Your task to perform on an android device: turn on wifi Image 0: 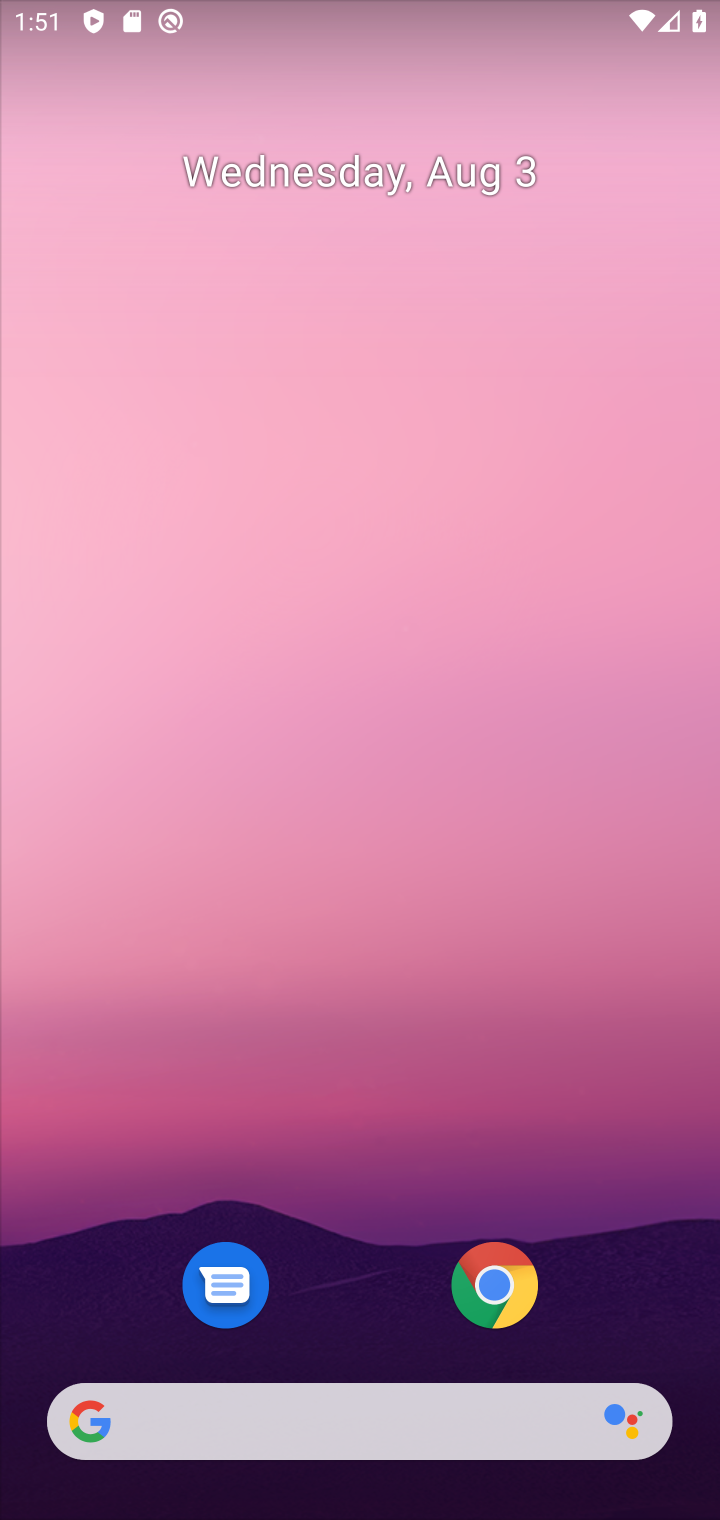
Step 0: click (272, 264)
Your task to perform on an android device: turn on wifi Image 1: 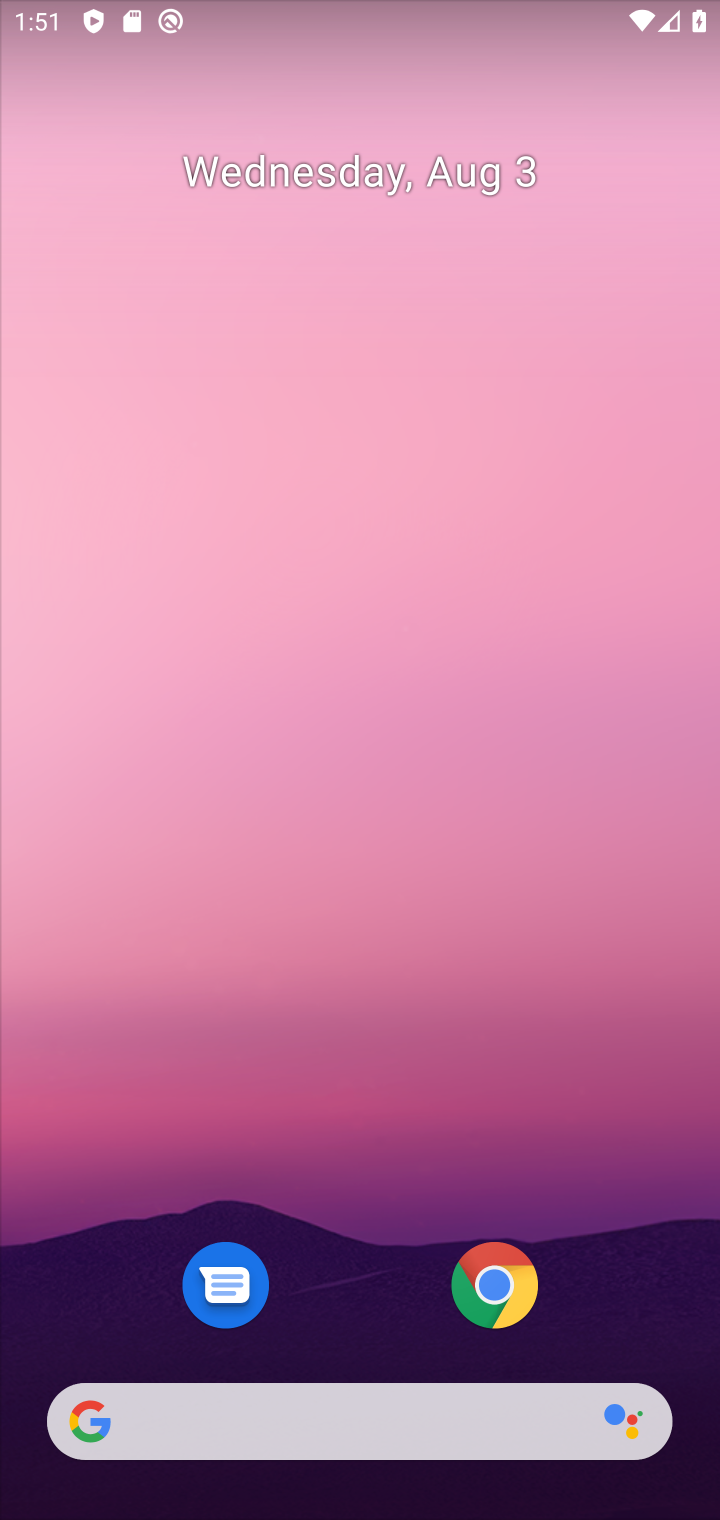
Step 1: drag from (418, 481) to (397, 251)
Your task to perform on an android device: turn on wifi Image 2: 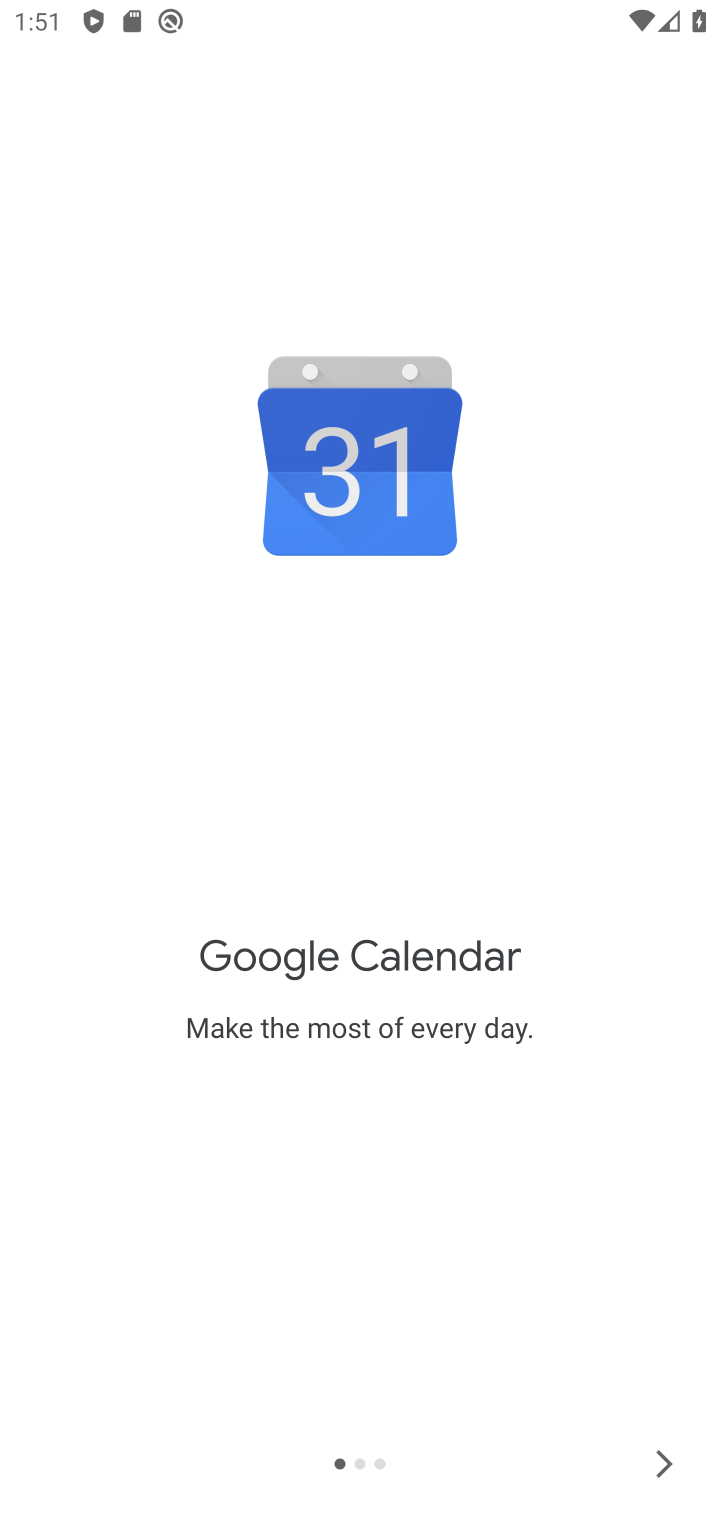
Step 2: drag from (115, 80) to (213, 85)
Your task to perform on an android device: turn on wifi Image 3: 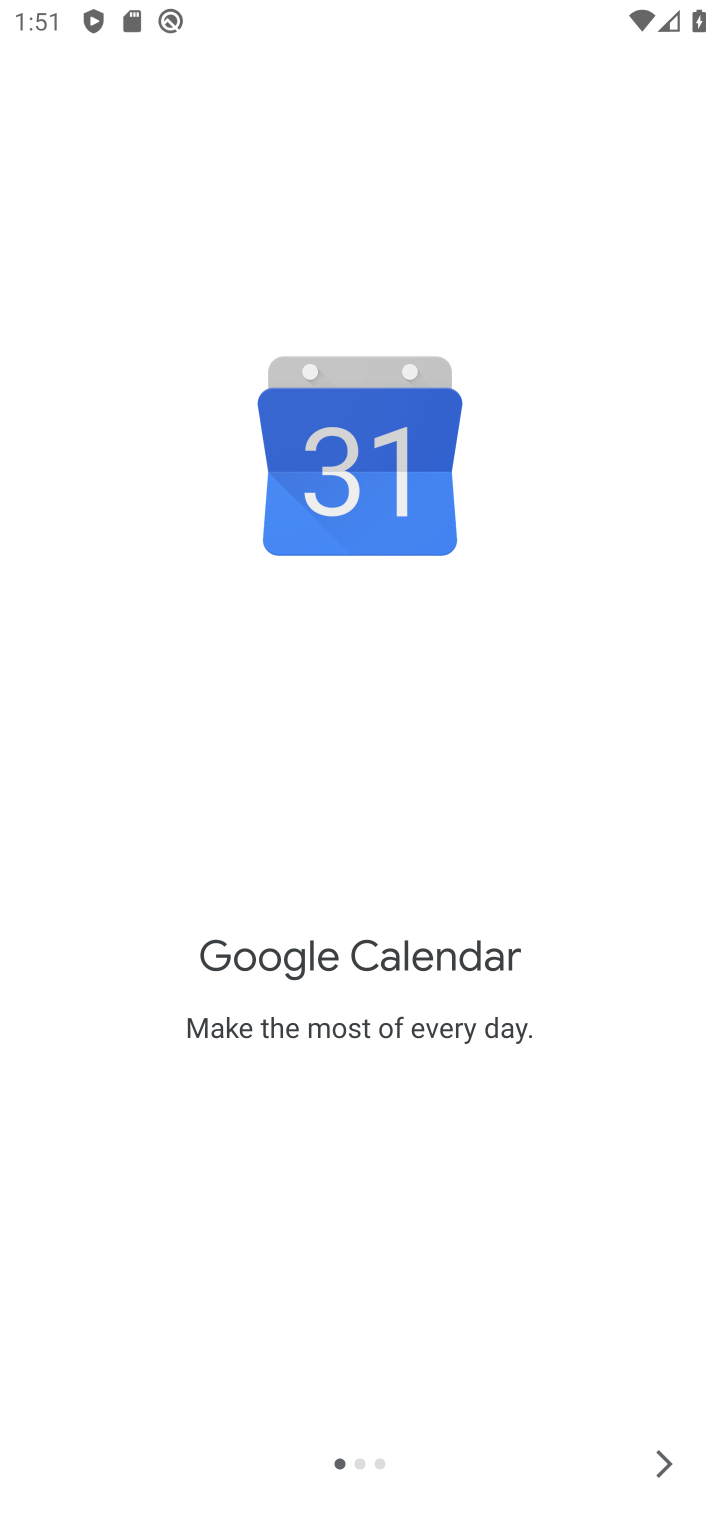
Step 3: press back button
Your task to perform on an android device: turn on wifi Image 4: 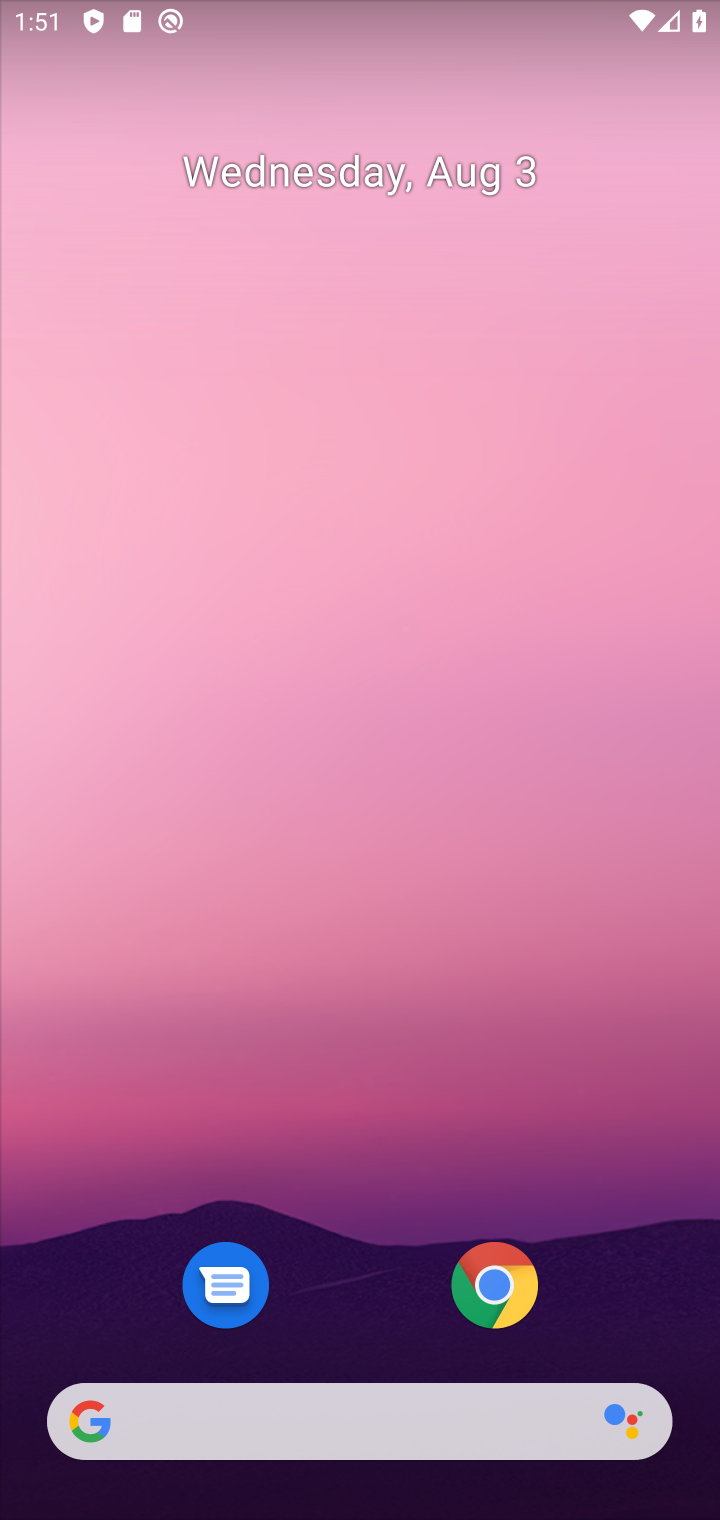
Step 4: drag from (350, 1331) to (124, 197)
Your task to perform on an android device: turn on wifi Image 5: 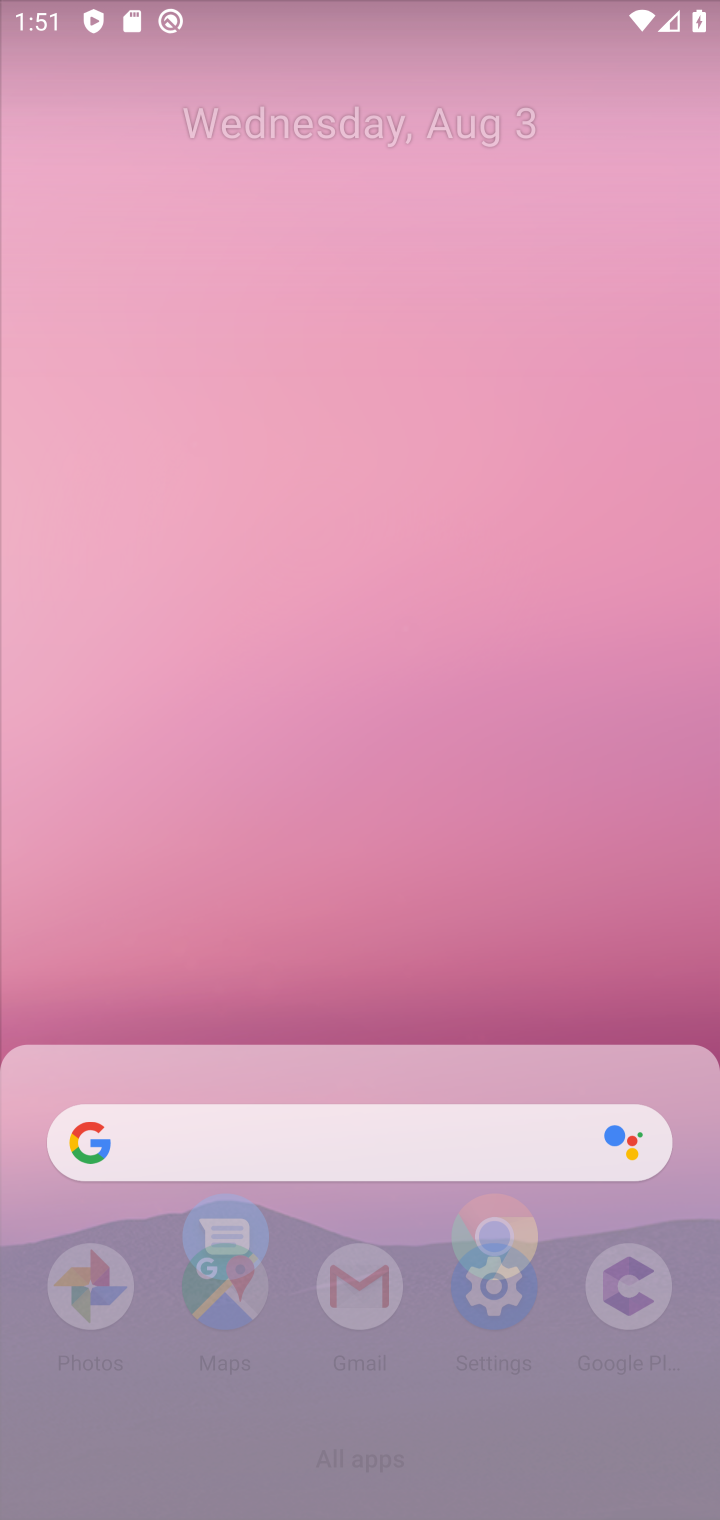
Step 5: click (193, 381)
Your task to perform on an android device: turn on wifi Image 6: 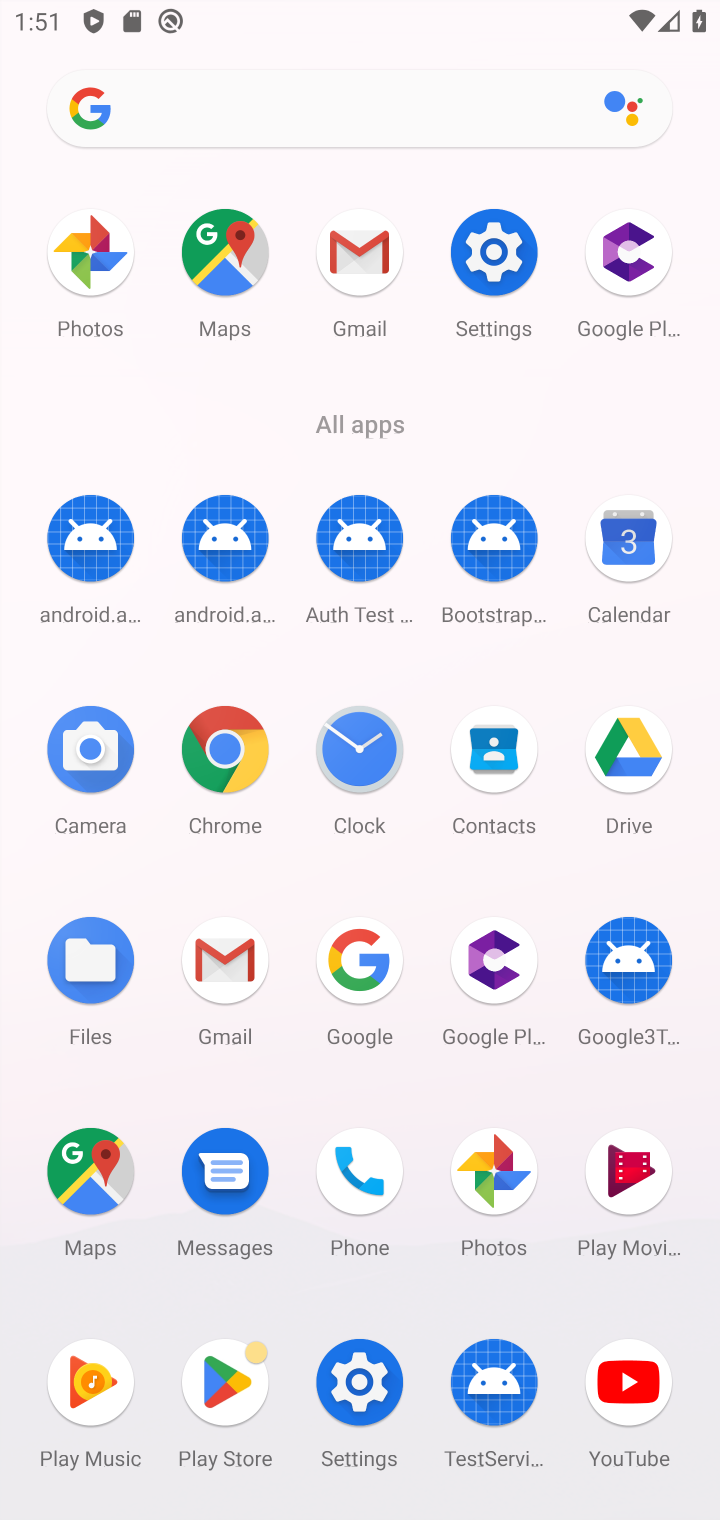
Step 6: click (498, 267)
Your task to perform on an android device: turn on wifi Image 7: 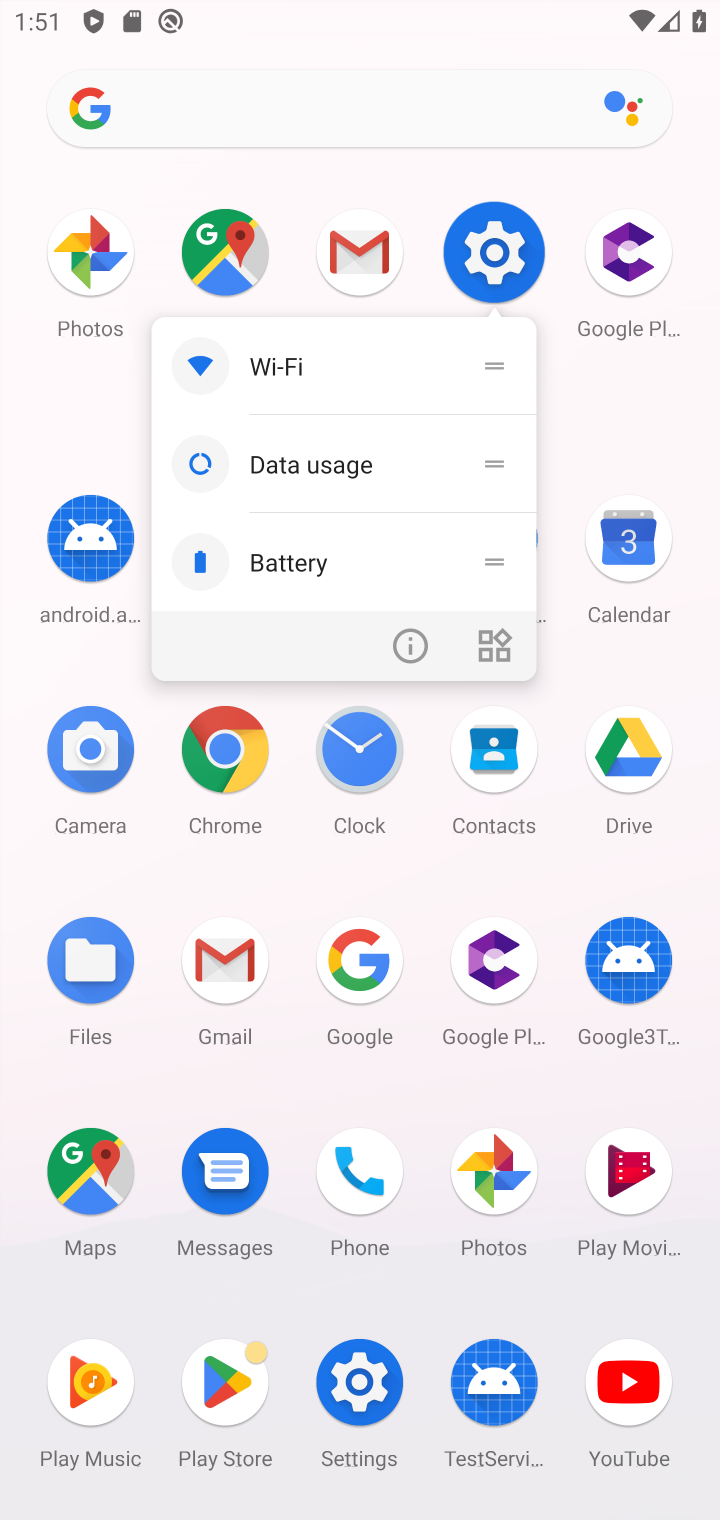
Step 7: click (498, 267)
Your task to perform on an android device: turn on wifi Image 8: 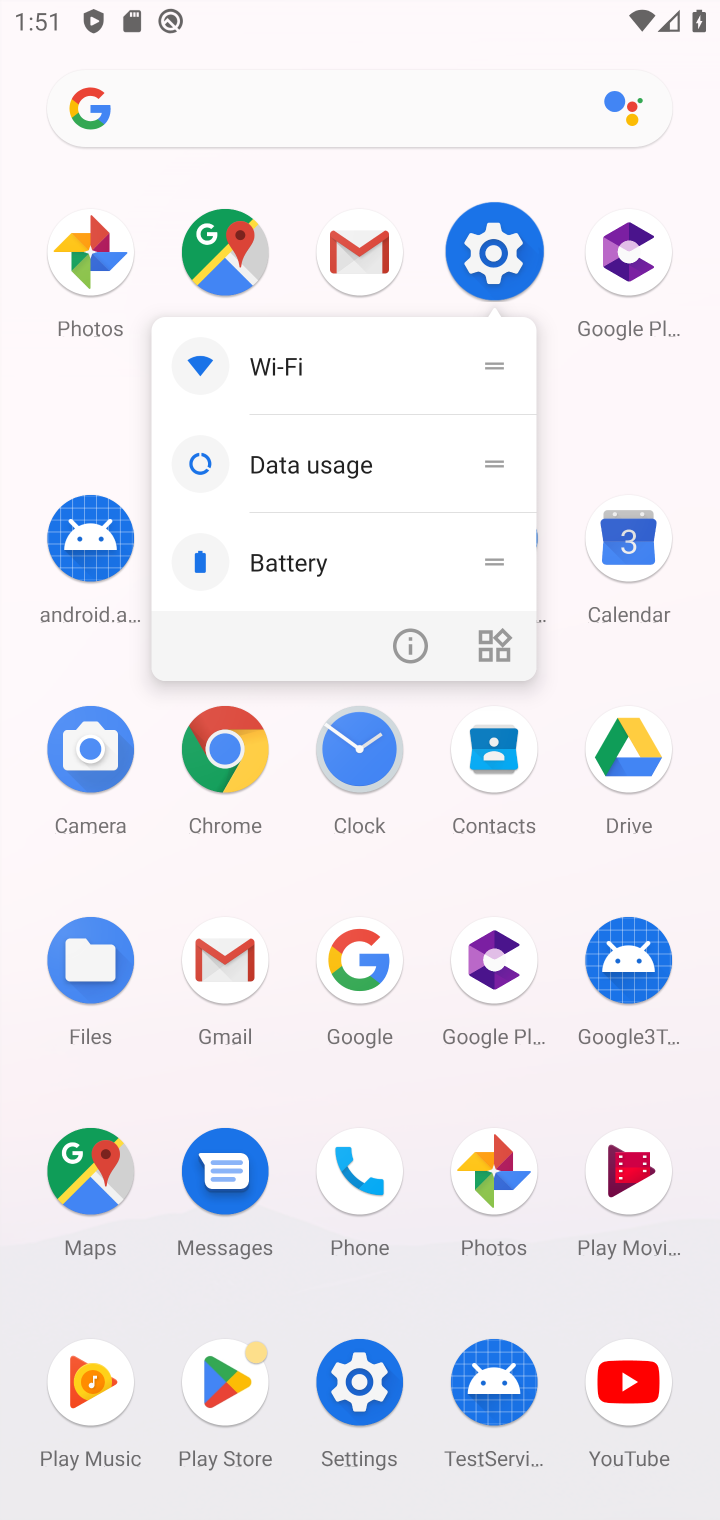
Step 8: click (503, 255)
Your task to perform on an android device: turn on wifi Image 9: 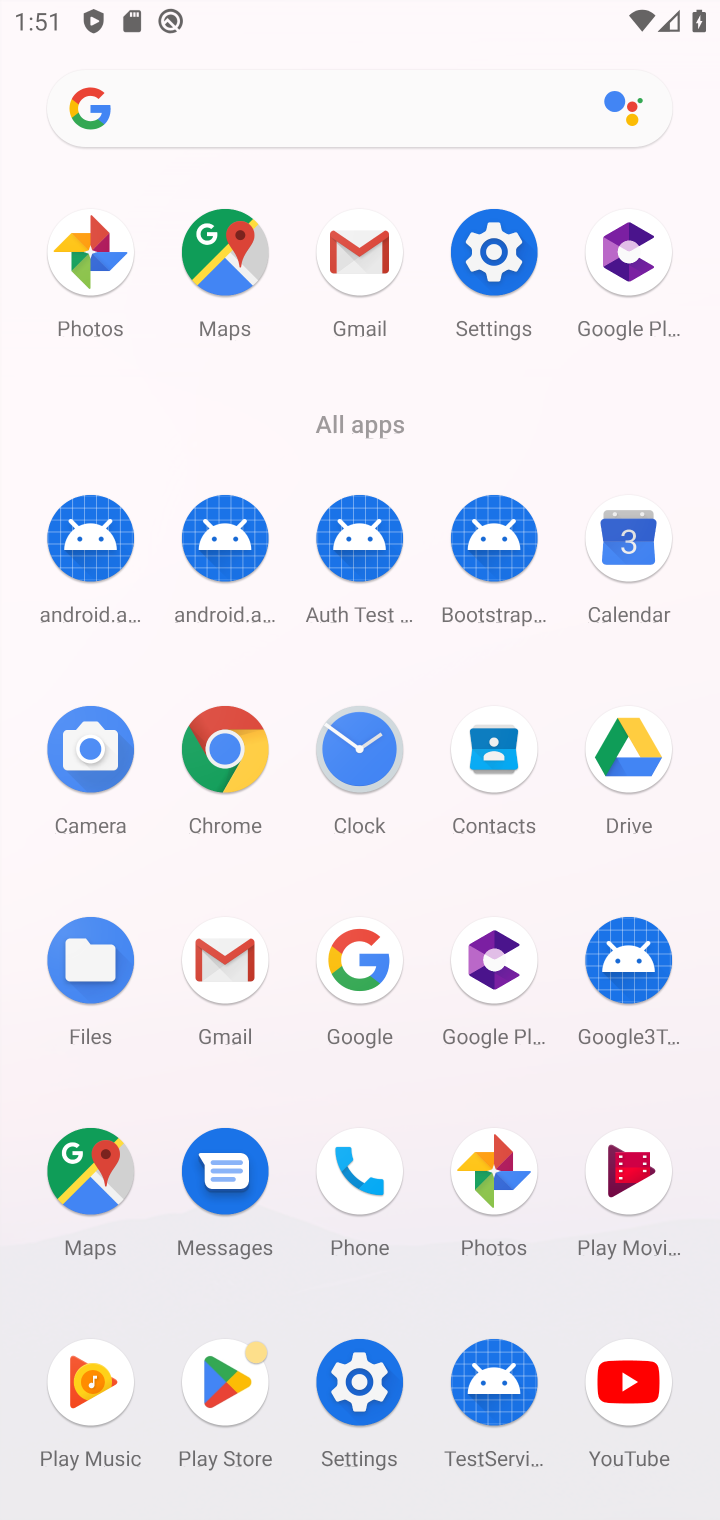
Step 9: click (498, 278)
Your task to perform on an android device: turn on wifi Image 10: 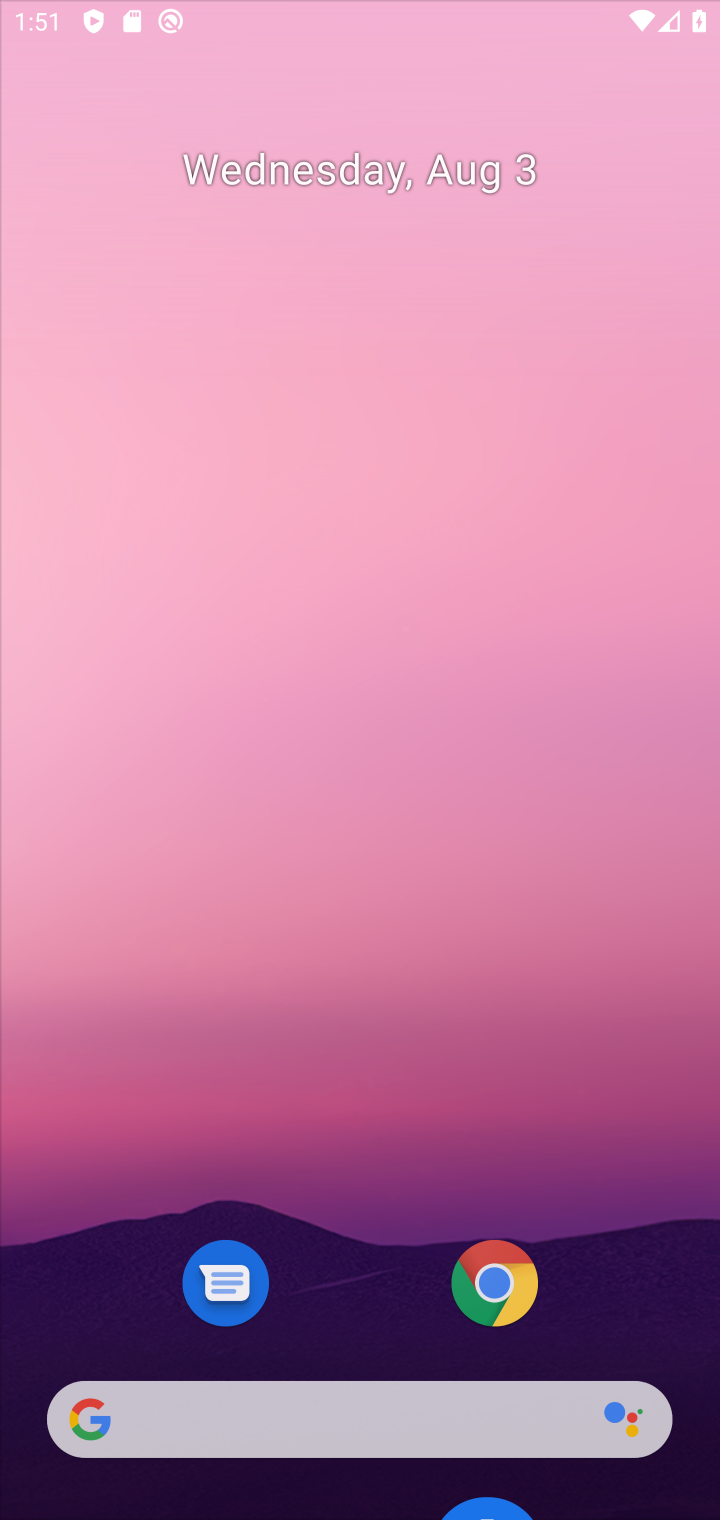
Step 10: click (145, 180)
Your task to perform on an android device: turn on wifi Image 11: 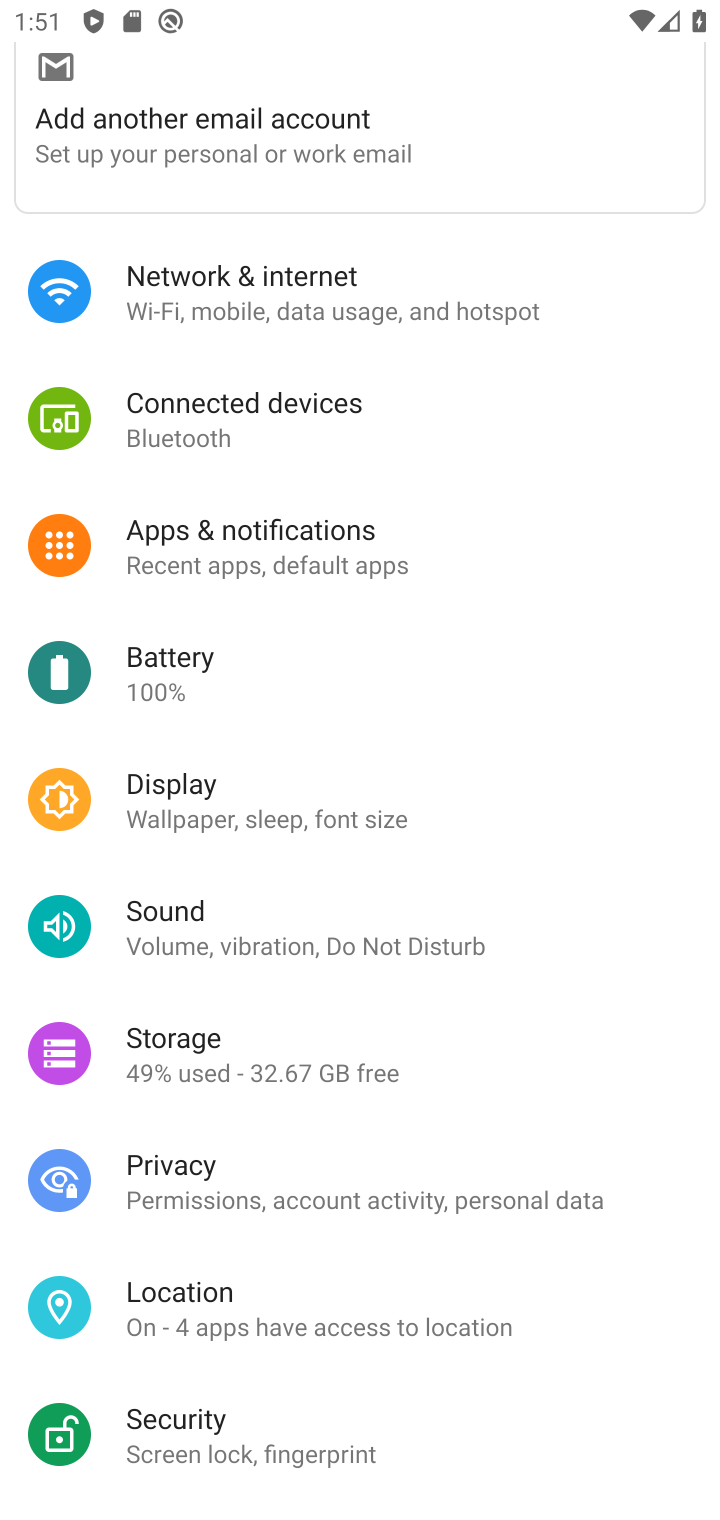
Step 11: drag from (240, 1072) to (54, 202)
Your task to perform on an android device: turn on wifi Image 12: 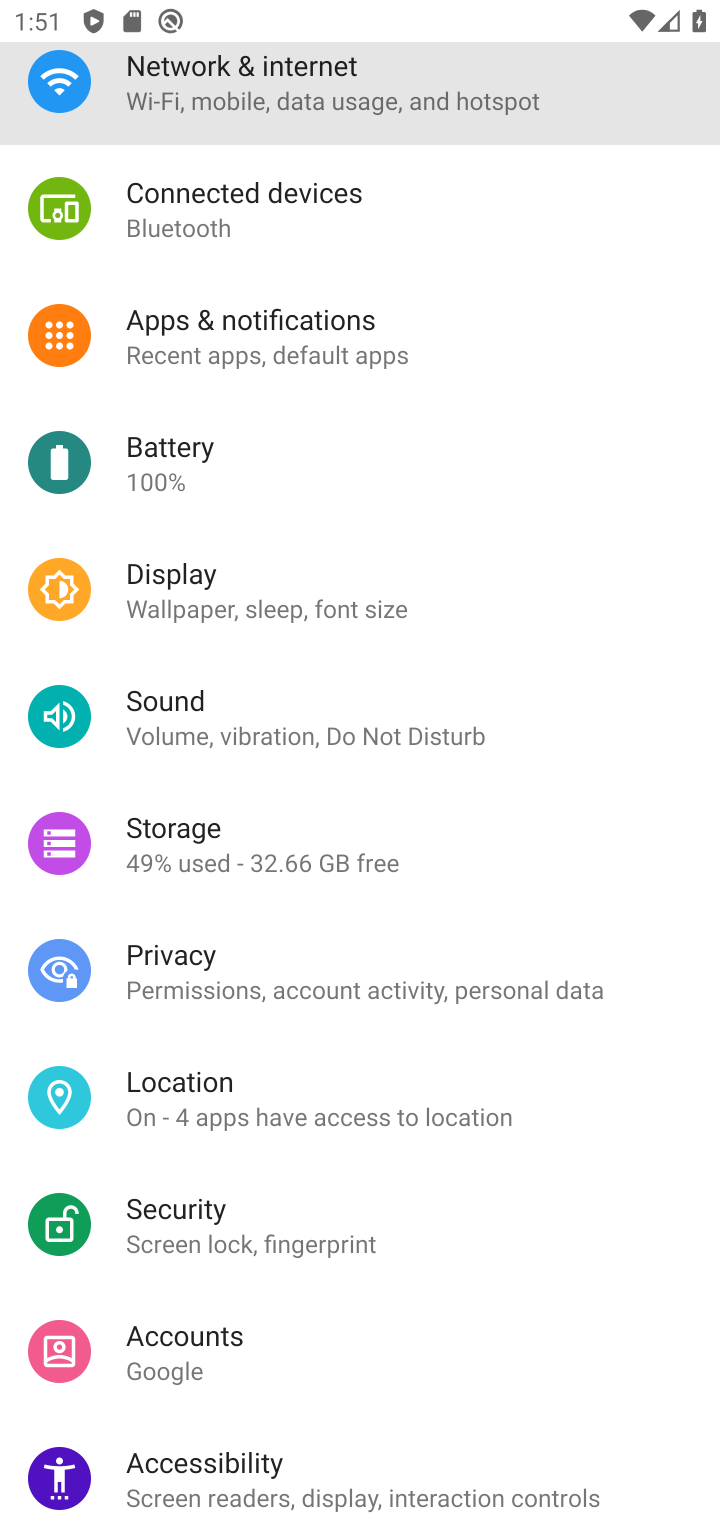
Step 12: click (181, 246)
Your task to perform on an android device: turn on wifi Image 13: 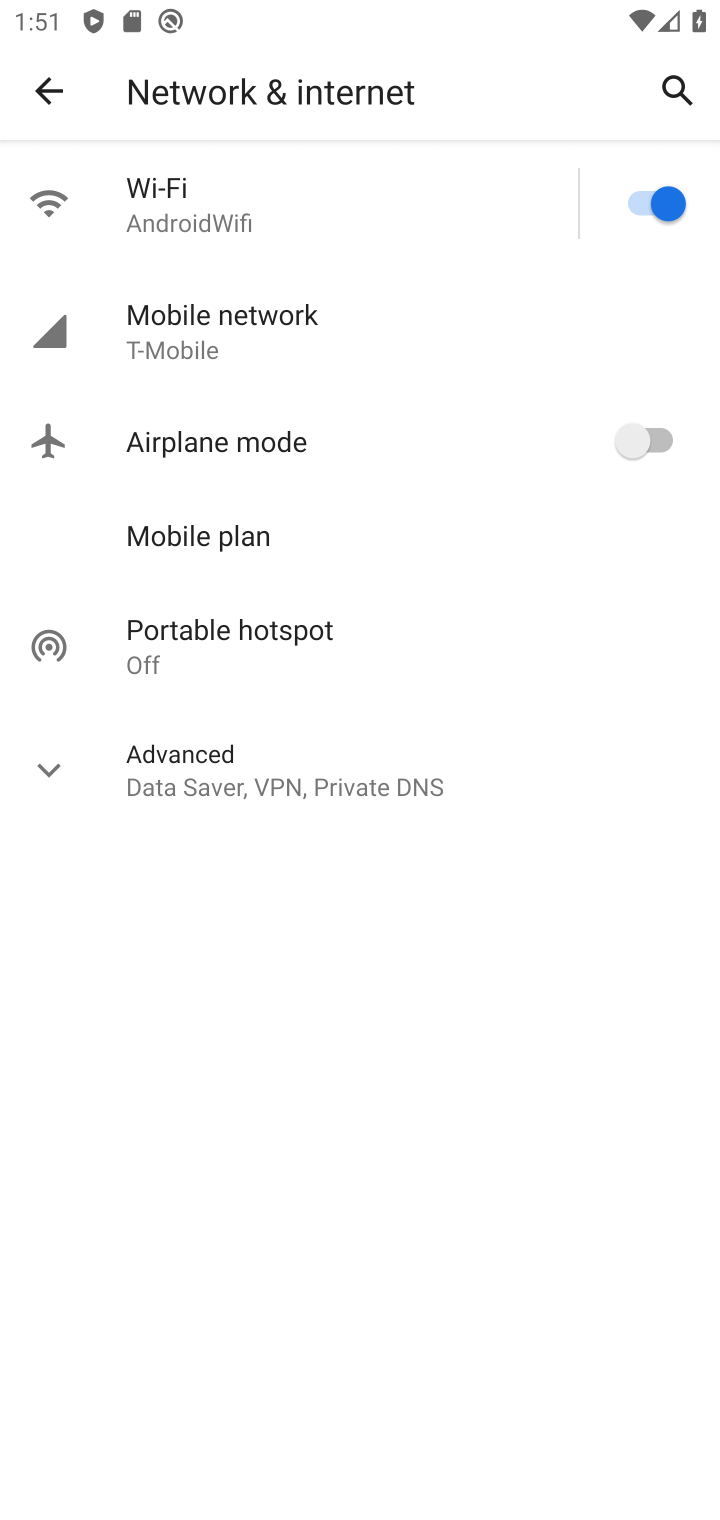
Step 13: task complete